Your task to perform on an android device: Open maps Image 0: 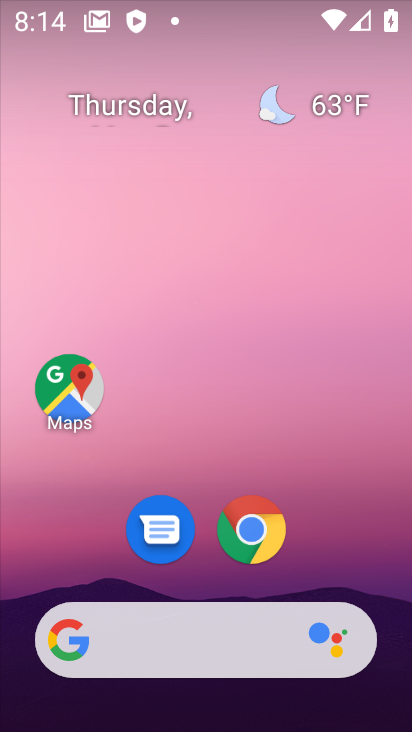
Step 0: click (69, 400)
Your task to perform on an android device: Open maps Image 1: 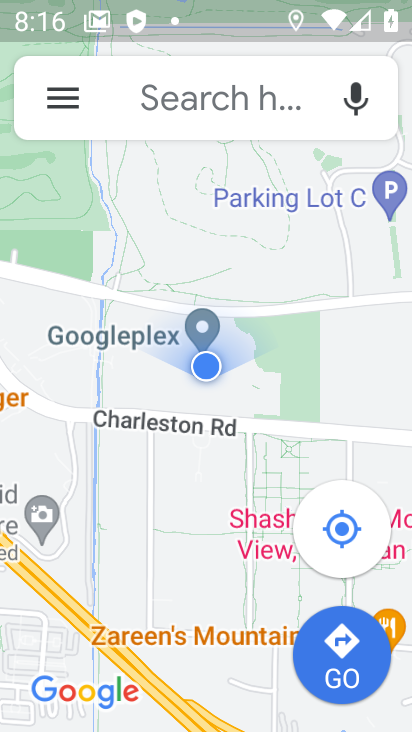
Step 1: task complete